Your task to perform on an android device: find which apps use the phone's location Image 0: 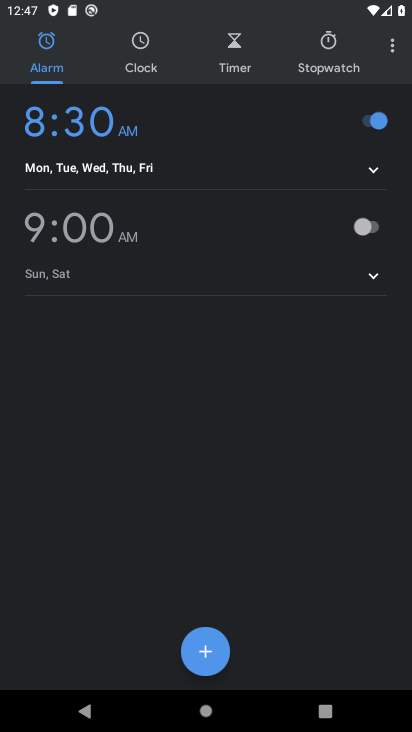
Step 0: press home button
Your task to perform on an android device: find which apps use the phone's location Image 1: 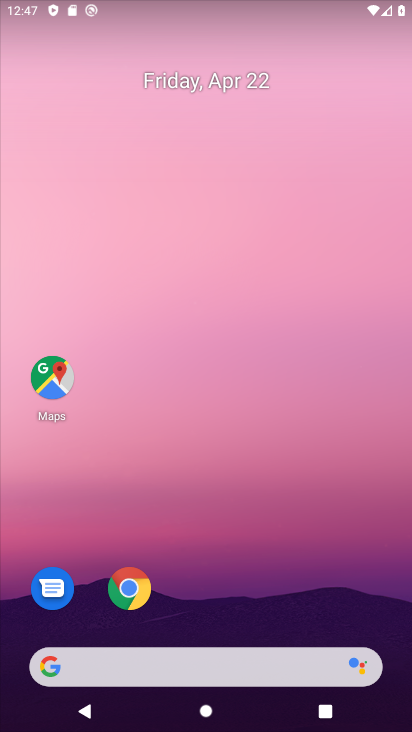
Step 1: drag from (273, 694) to (258, 297)
Your task to perform on an android device: find which apps use the phone's location Image 2: 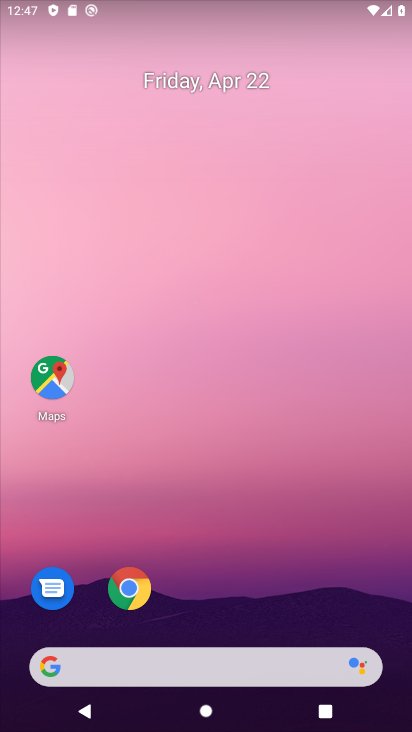
Step 2: drag from (233, 690) to (245, 206)
Your task to perform on an android device: find which apps use the phone's location Image 3: 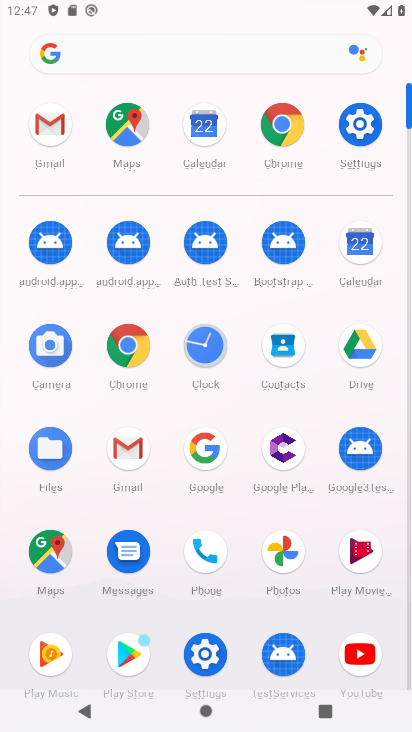
Step 3: click (346, 131)
Your task to perform on an android device: find which apps use the phone's location Image 4: 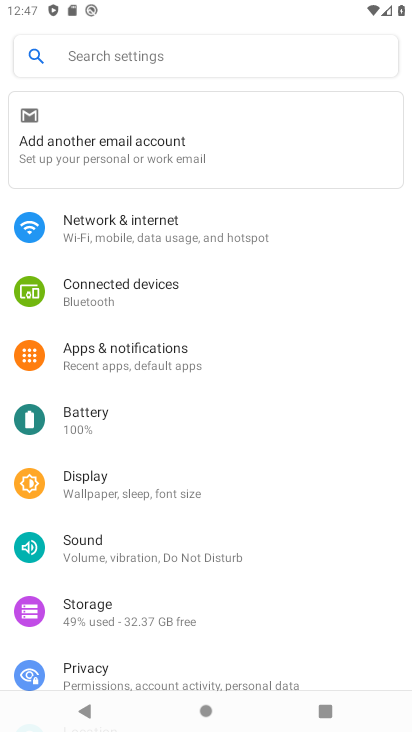
Step 4: click (131, 53)
Your task to perform on an android device: find which apps use the phone's location Image 5: 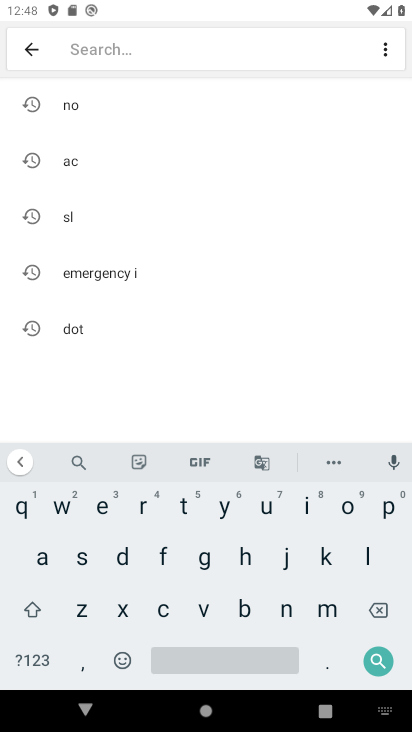
Step 5: click (368, 559)
Your task to perform on an android device: find which apps use the phone's location Image 6: 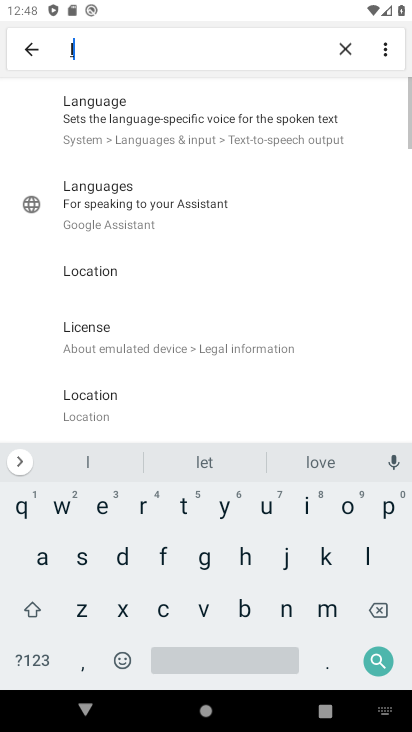
Step 6: click (348, 514)
Your task to perform on an android device: find which apps use the phone's location Image 7: 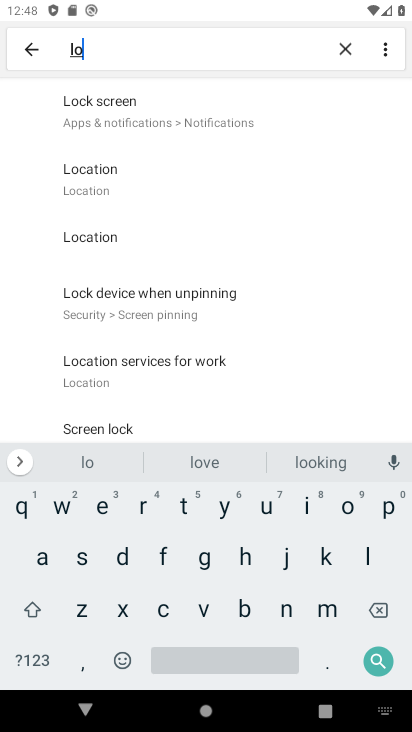
Step 7: click (164, 606)
Your task to perform on an android device: find which apps use the phone's location Image 8: 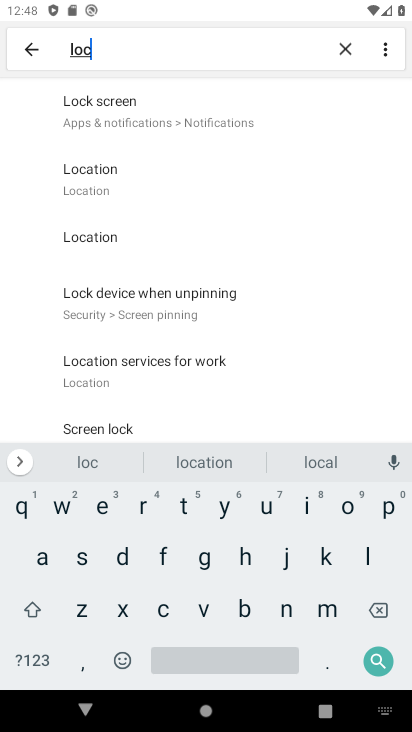
Step 8: click (44, 564)
Your task to perform on an android device: find which apps use the phone's location Image 9: 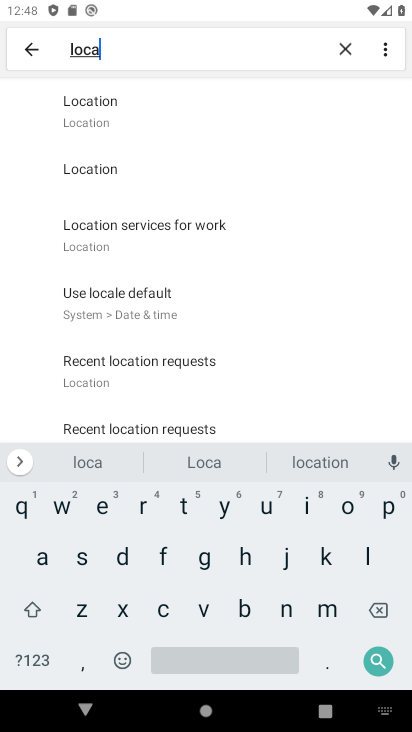
Step 9: click (132, 127)
Your task to perform on an android device: find which apps use the phone's location Image 10: 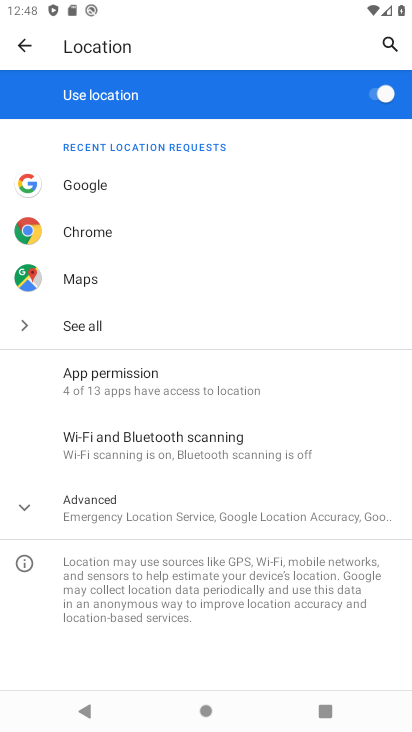
Step 10: click (103, 323)
Your task to perform on an android device: find which apps use the phone's location Image 11: 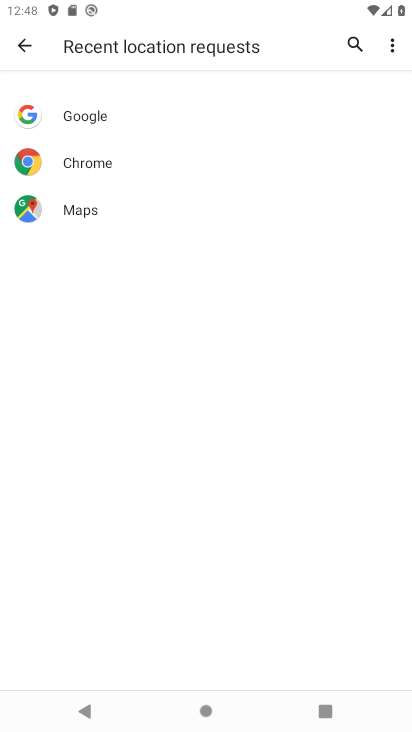
Step 11: task complete